Your task to perform on an android device: empty trash in the gmail app Image 0: 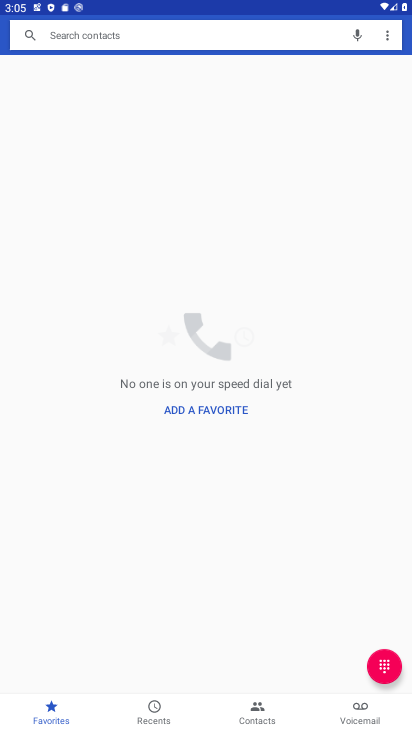
Step 0: press home button
Your task to perform on an android device: empty trash in the gmail app Image 1: 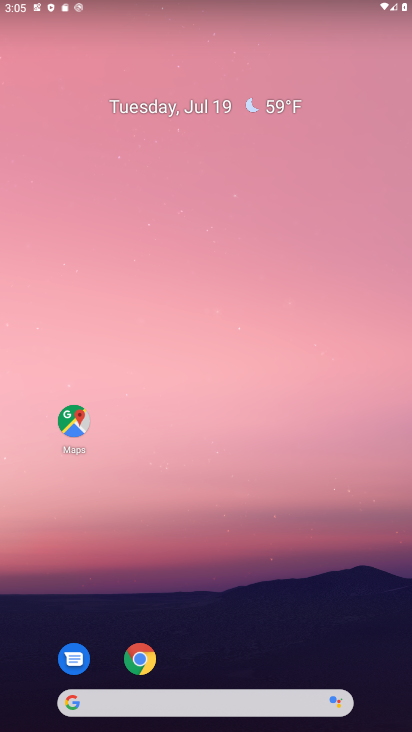
Step 1: drag from (202, 693) to (258, 218)
Your task to perform on an android device: empty trash in the gmail app Image 2: 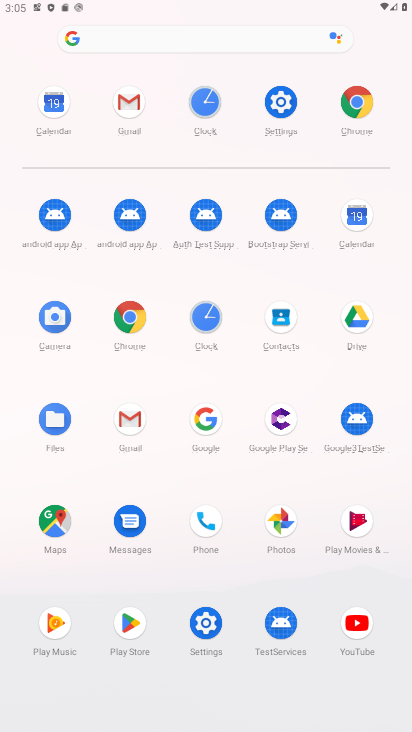
Step 2: click (127, 101)
Your task to perform on an android device: empty trash in the gmail app Image 3: 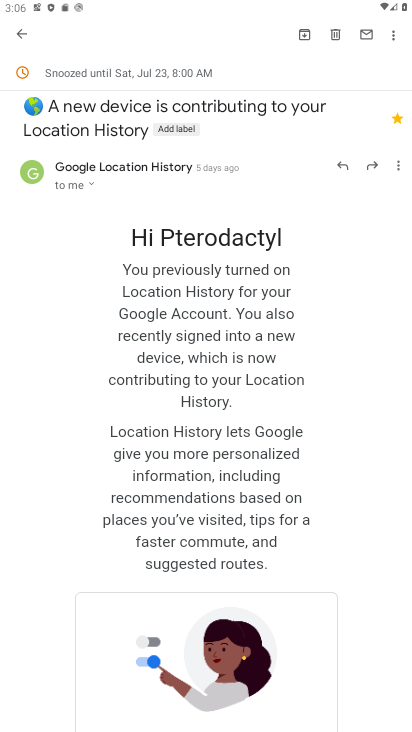
Step 3: press back button
Your task to perform on an android device: empty trash in the gmail app Image 4: 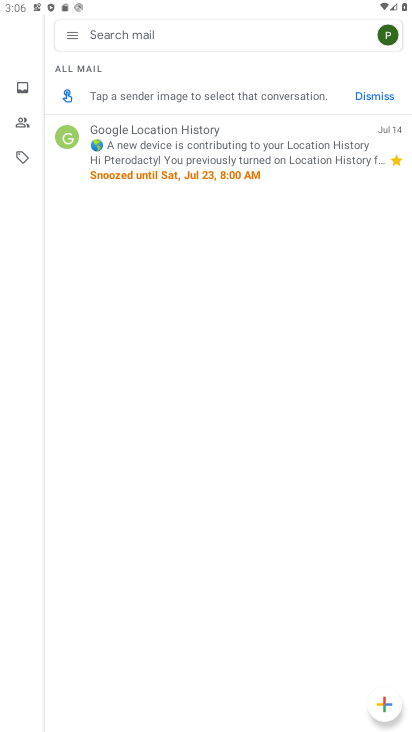
Step 4: click (66, 33)
Your task to perform on an android device: empty trash in the gmail app Image 5: 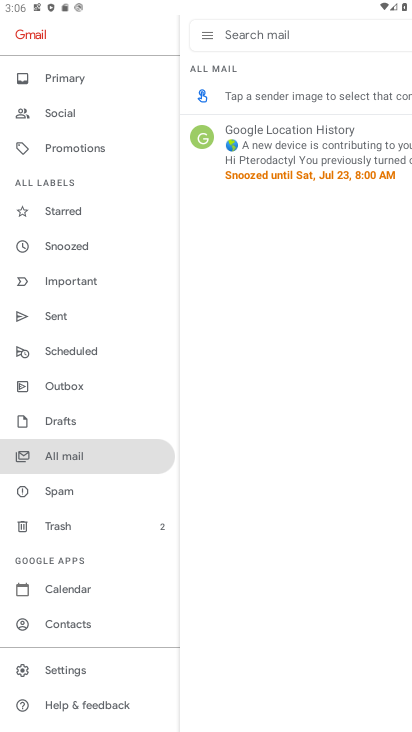
Step 5: click (60, 524)
Your task to perform on an android device: empty trash in the gmail app Image 6: 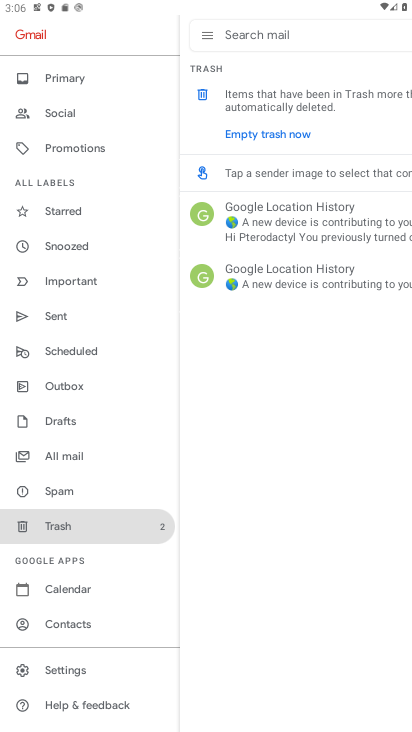
Step 6: click (278, 131)
Your task to perform on an android device: empty trash in the gmail app Image 7: 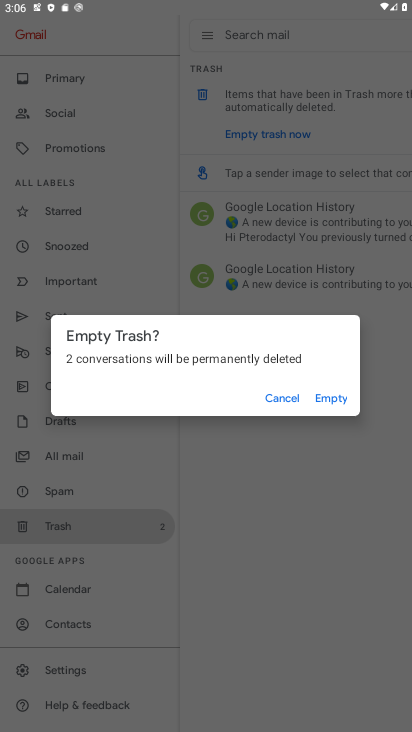
Step 7: click (321, 391)
Your task to perform on an android device: empty trash in the gmail app Image 8: 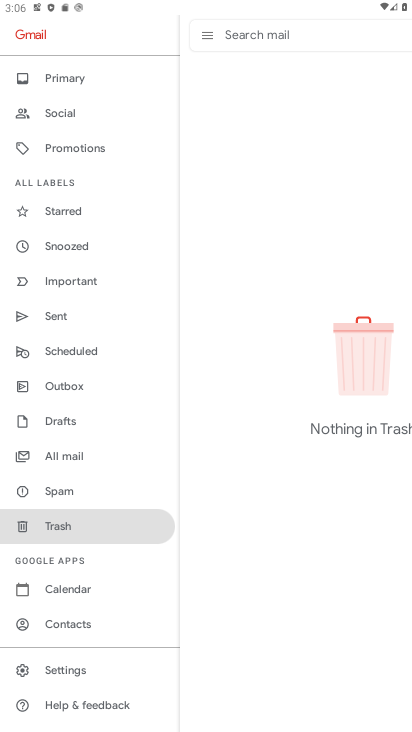
Step 8: task complete